Your task to perform on an android device: find which apps use the phone's location Image 0: 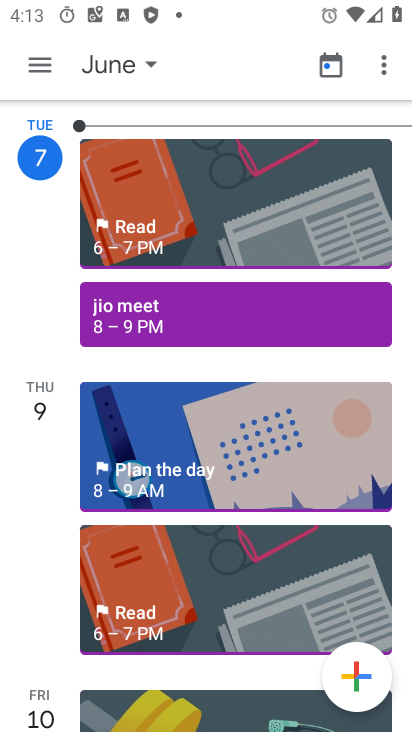
Step 0: press home button
Your task to perform on an android device: find which apps use the phone's location Image 1: 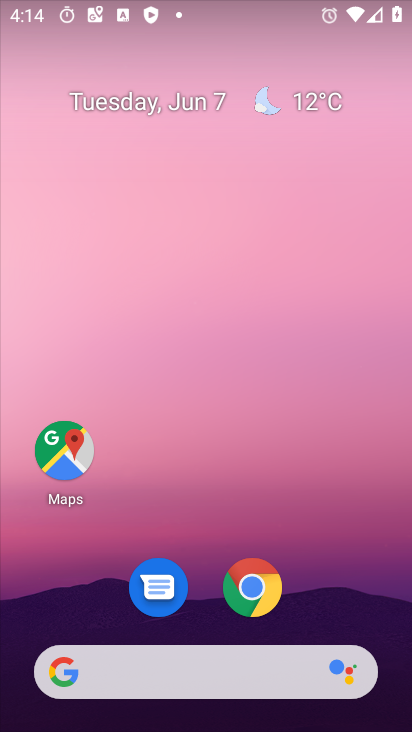
Step 1: drag from (331, 558) to (319, 208)
Your task to perform on an android device: find which apps use the phone's location Image 2: 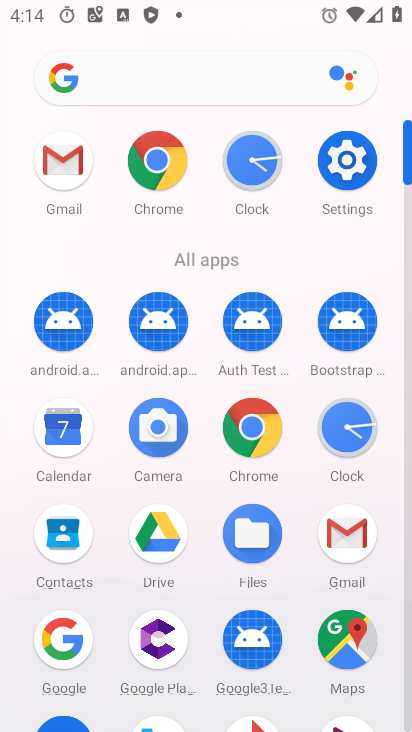
Step 2: click (348, 160)
Your task to perform on an android device: find which apps use the phone's location Image 3: 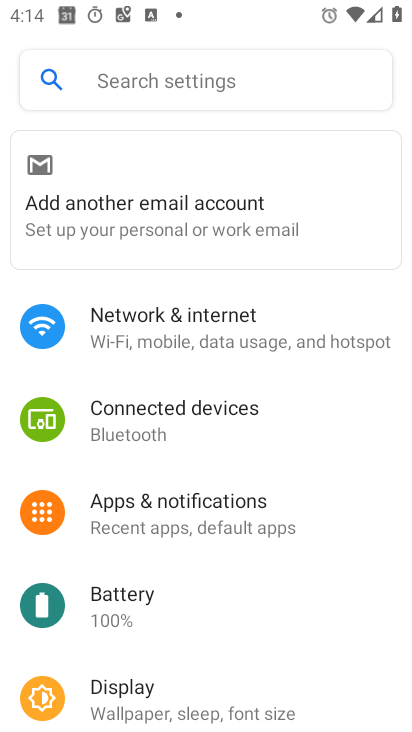
Step 3: drag from (241, 549) to (226, 280)
Your task to perform on an android device: find which apps use the phone's location Image 4: 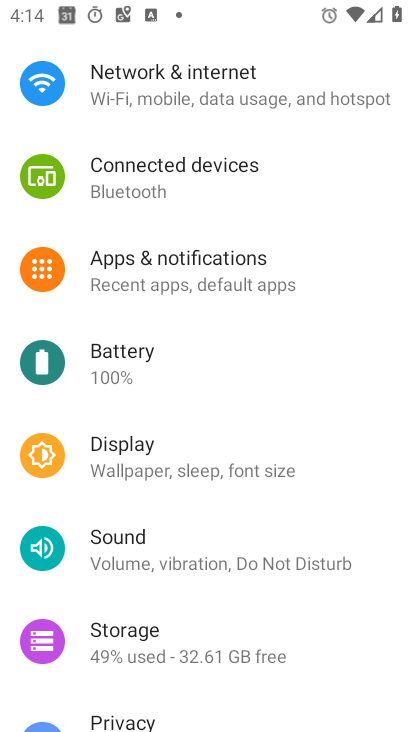
Step 4: drag from (242, 631) to (302, 162)
Your task to perform on an android device: find which apps use the phone's location Image 5: 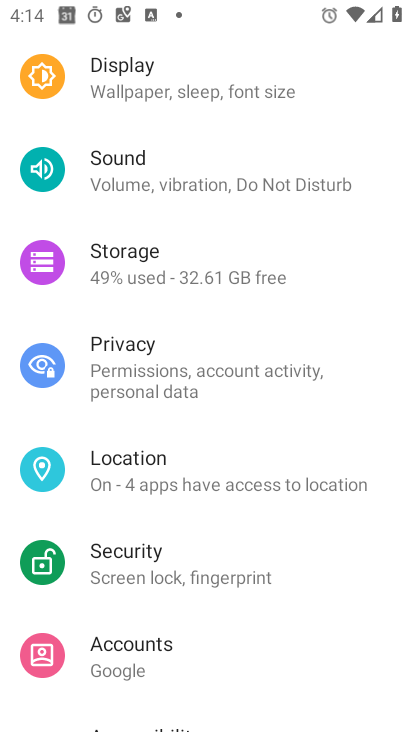
Step 5: click (235, 482)
Your task to perform on an android device: find which apps use the phone's location Image 6: 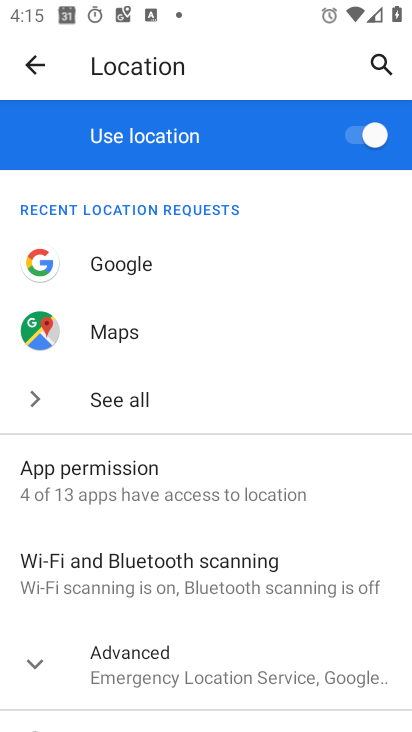
Step 6: click (237, 476)
Your task to perform on an android device: find which apps use the phone's location Image 7: 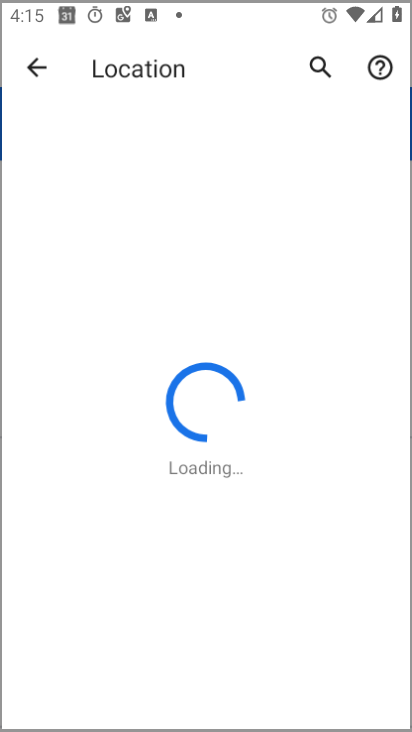
Step 7: click (129, 475)
Your task to perform on an android device: find which apps use the phone's location Image 8: 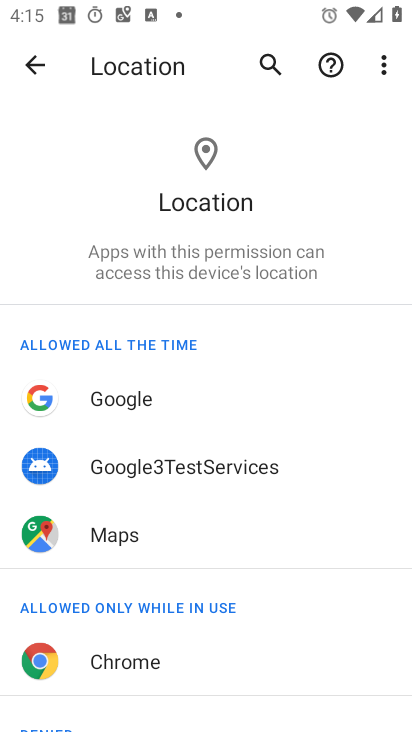
Step 8: task complete